Your task to perform on an android device: Open calendar and show me the fourth week of next month Image 0: 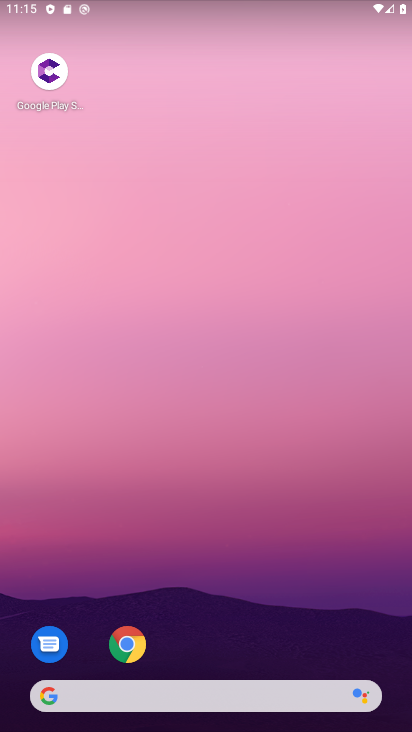
Step 0: drag from (255, 607) to (223, 215)
Your task to perform on an android device: Open calendar and show me the fourth week of next month Image 1: 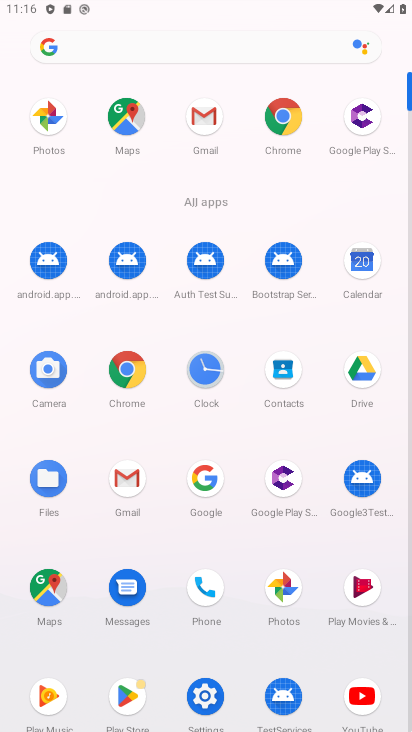
Step 1: click (359, 259)
Your task to perform on an android device: Open calendar and show me the fourth week of next month Image 2: 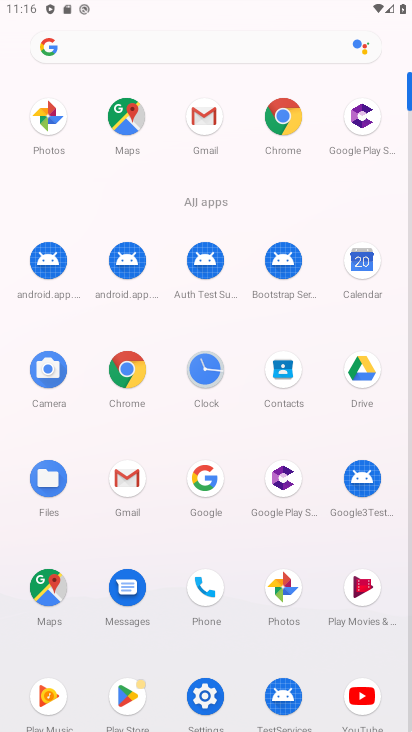
Step 2: click (356, 257)
Your task to perform on an android device: Open calendar and show me the fourth week of next month Image 3: 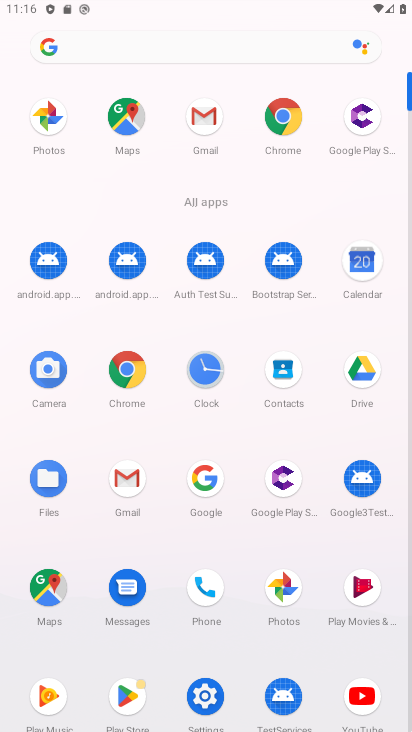
Step 3: click (356, 257)
Your task to perform on an android device: Open calendar and show me the fourth week of next month Image 4: 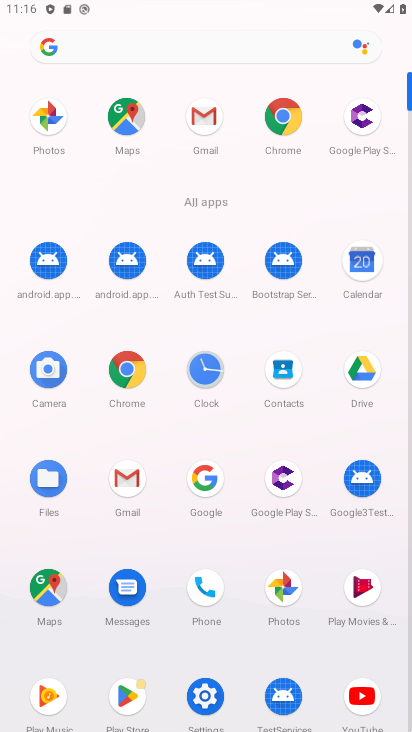
Step 4: click (359, 257)
Your task to perform on an android device: Open calendar and show me the fourth week of next month Image 5: 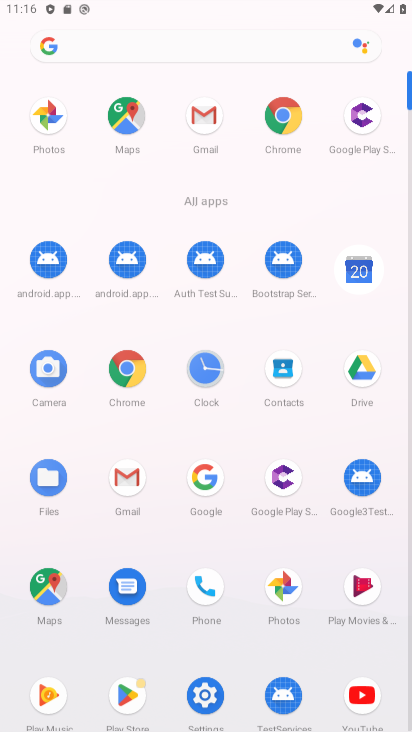
Step 5: click (359, 257)
Your task to perform on an android device: Open calendar and show me the fourth week of next month Image 6: 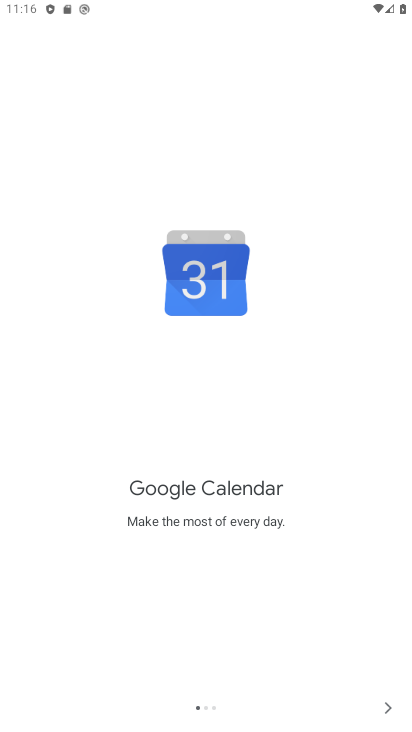
Step 6: click (389, 708)
Your task to perform on an android device: Open calendar and show me the fourth week of next month Image 7: 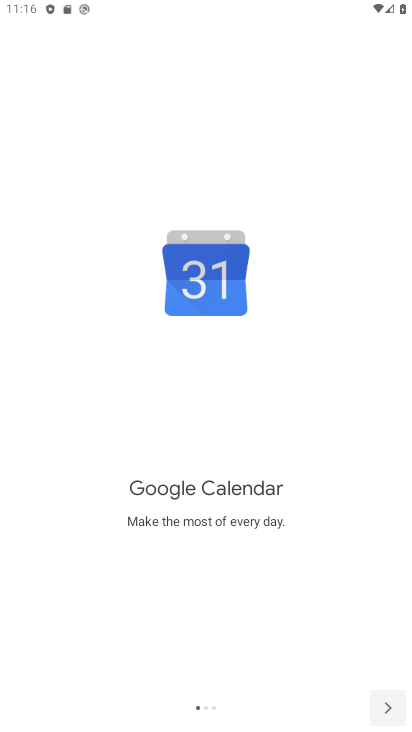
Step 7: click (393, 708)
Your task to perform on an android device: Open calendar and show me the fourth week of next month Image 8: 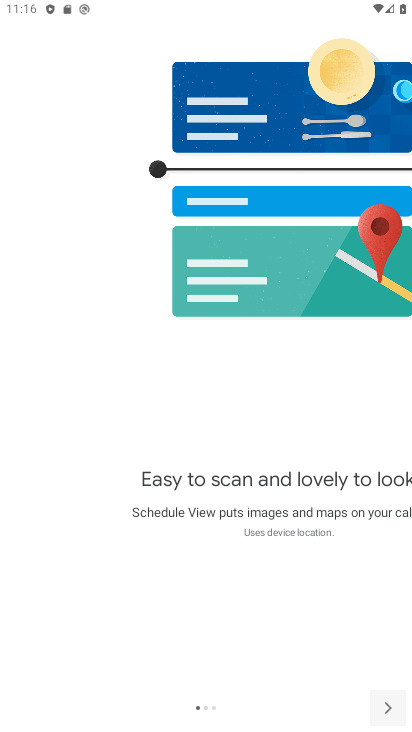
Step 8: click (393, 708)
Your task to perform on an android device: Open calendar and show me the fourth week of next month Image 9: 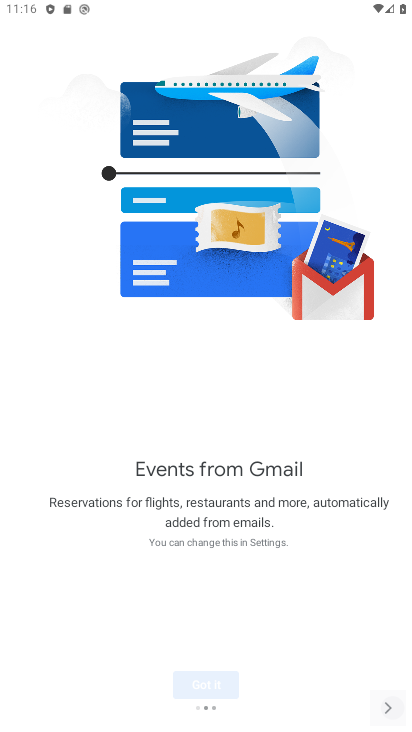
Step 9: click (393, 705)
Your task to perform on an android device: Open calendar and show me the fourth week of next month Image 10: 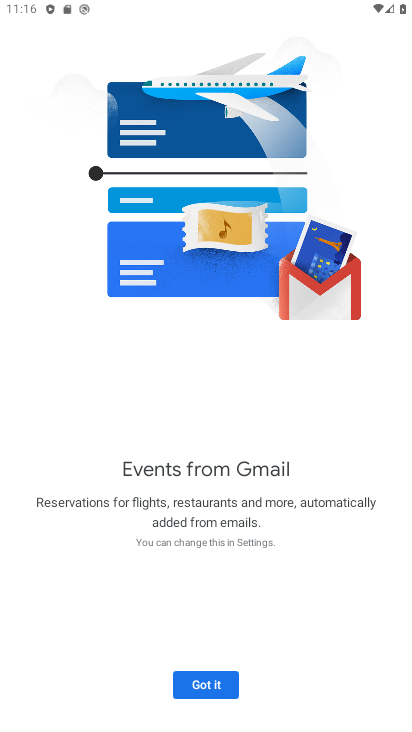
Step 10: click (394, 704)
Your task to perform on an android device: Open calendar and show me the fourth week of next month Image 11: 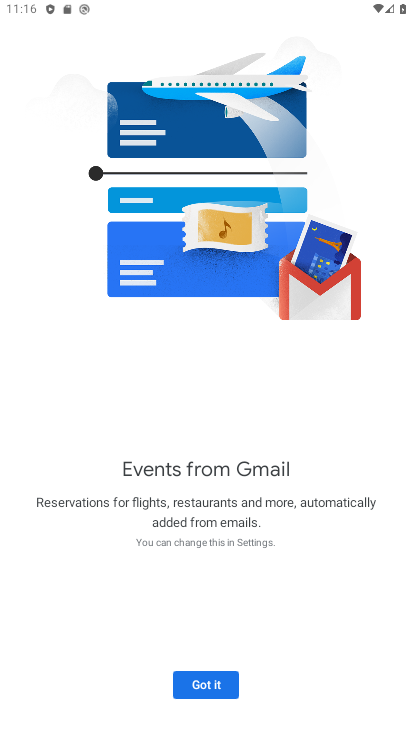
Step 11: click (393, 706)
Your task to perform on an android device: Open calendar and show me the fourth week of next month Image 12: 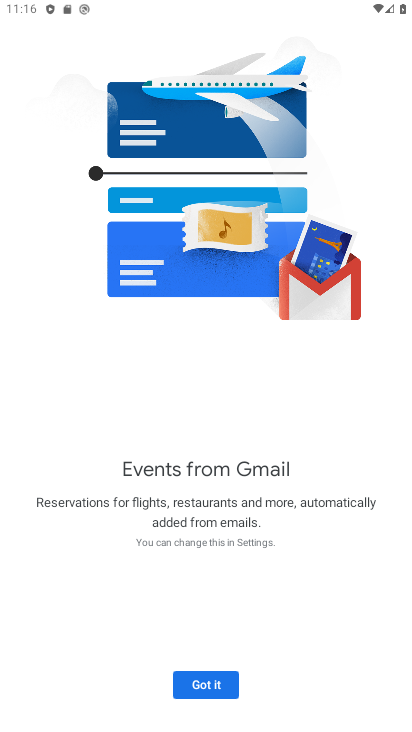
Step 12: click (219, 686)
Your task to perform on an android device: Open calendar and show me the fourth week of next month Image 13: 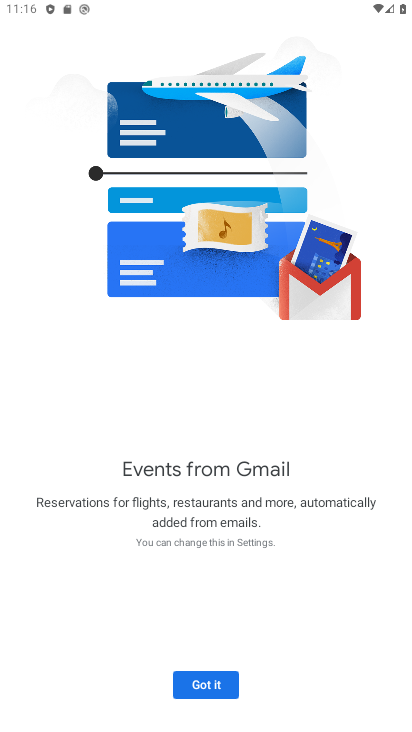
Step 13: click (220, 688)
Your task to perform on an android device: Open calendar and show me the fourth week of next month Image 14: 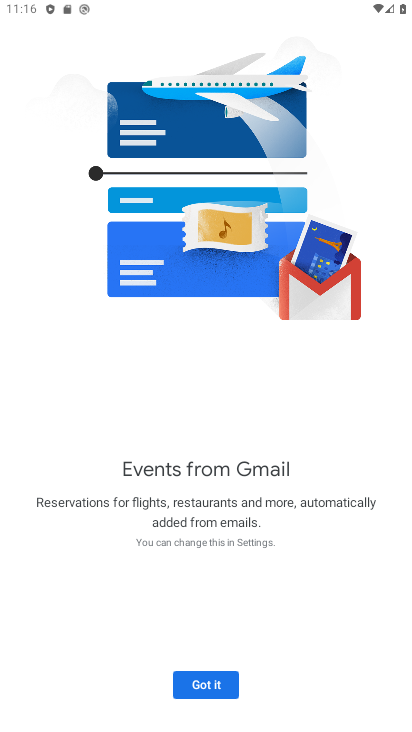
Step 14: click (223, 691)
Your task to perform on an android device: Open calendar and show me the fourth week of next month Image 15: 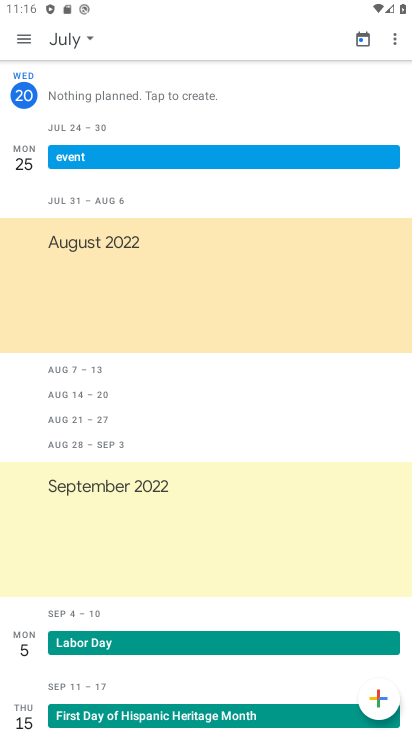
Step 15: click (93, 45)
Your task to perform on an android device: Open calendar and show me the fourth week of next month Image 16: 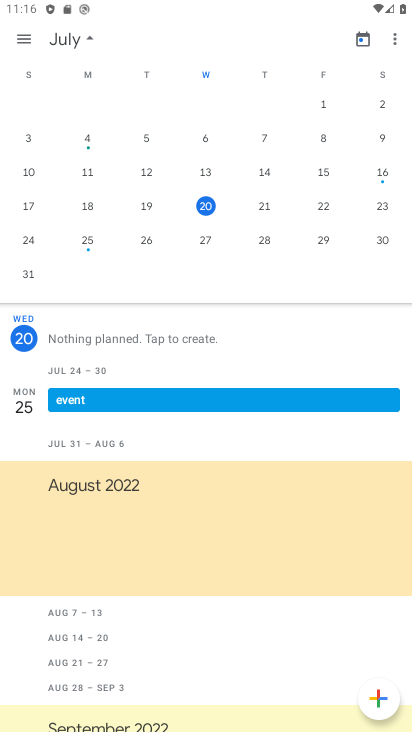
Step 16: drag from (330, 179) to (0, 159)
Your task to perform on an android device: Open calendar and show me the fourth week of next month Image 17: 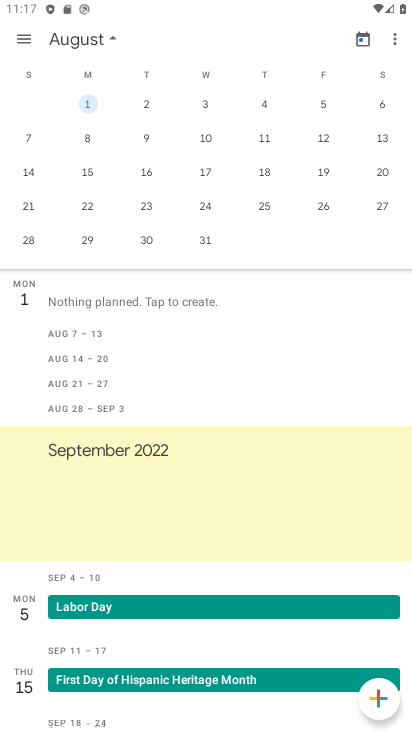
Step 17: click (203, 200)
Your task to perform on an android device: Open calendar and show me the fourth week of next month Image 18: 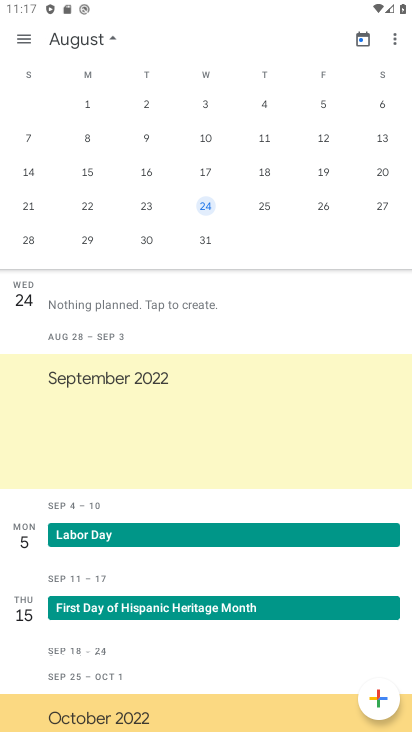
Step 18: task complete